Your task to perform on an android device: delete the emails in spam in the gmail app Image 0: 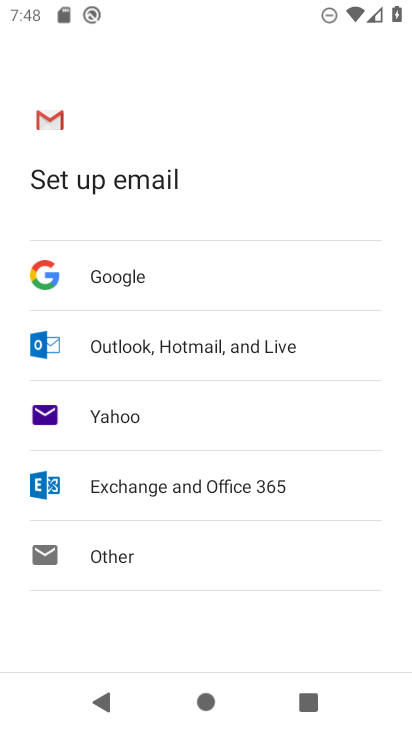
Step 0: press home button
Your task to perform on an android device: delete the emails in spam in the gmail app Image 1: 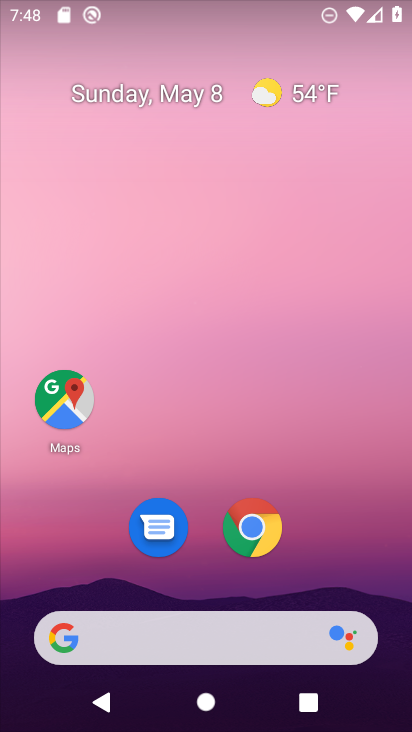
Step 1: drag from (318, 543) to (336, 95)
Your task to perform on an android device: delete the emails in spam in the gmail app Image 2: 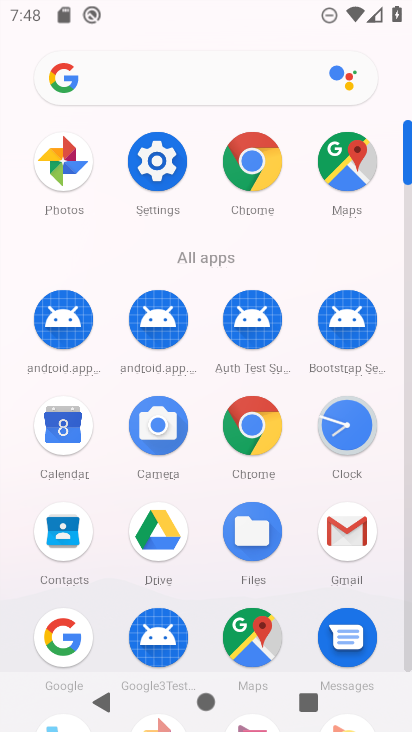
Step 2: click (341, 544)
Your task to perform on an android device: delete the emails in spam in the gmail app Image 3: 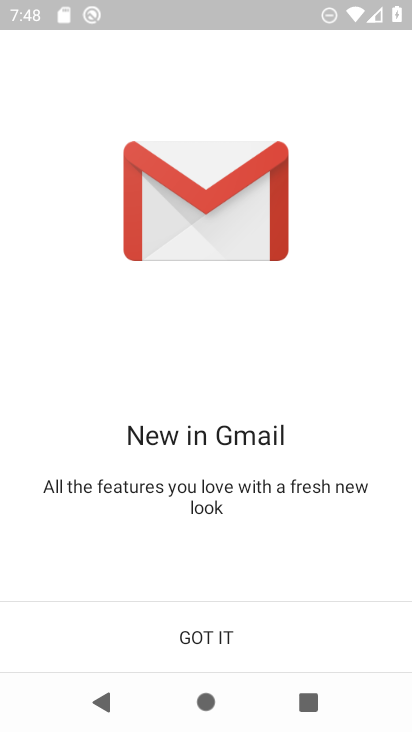
Step 3: click (187, 589)
Your task to perform on an android device: delete the emails in spam in the gmail app Image 4: 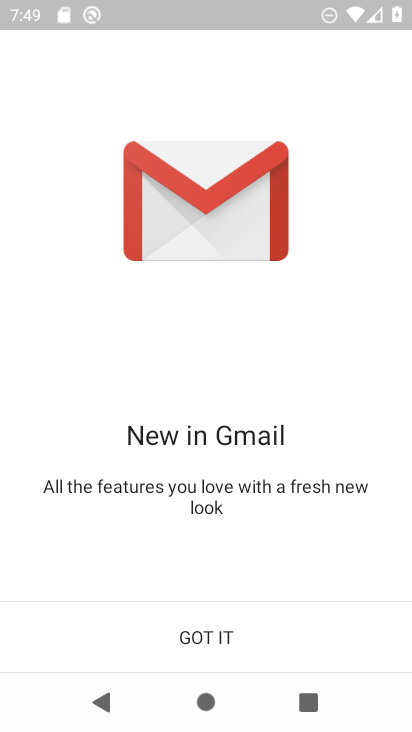
Step 4: click (189, 635)
Your task to perform on an android device: delete the emails in spam in the gmail app Image 5: 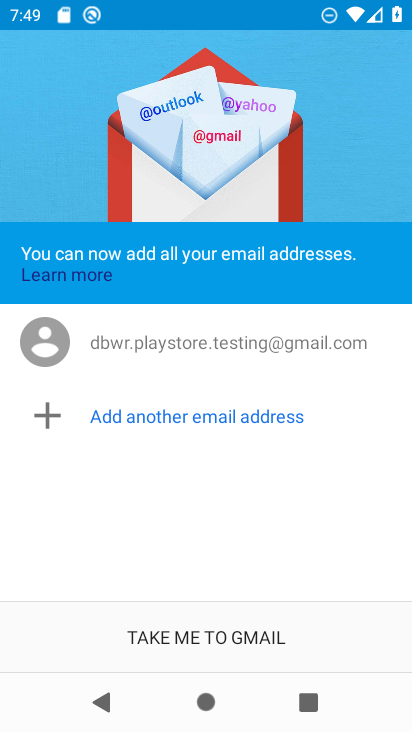
Step 5: click (211, 628)
Your task to perform on an android device: delete the emails in spam in the gmail app Image 6: 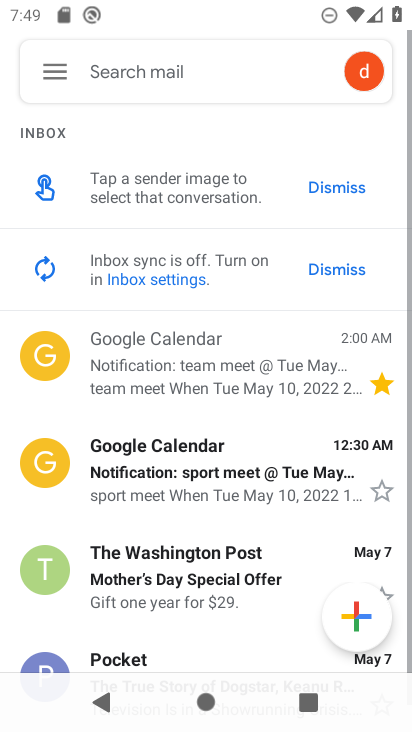
Step 6: click (37, 66)
Your task to perform on an android device: delete the emails in spam in the gmail app Image 7: 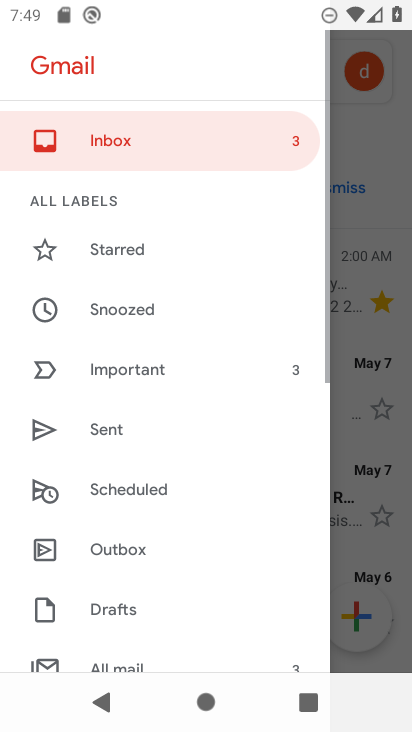
Step 7: drag from (65, 532) to (188, 110)
Your task to perform on an android device: delete the emails in spam in the gmail app Image 8: 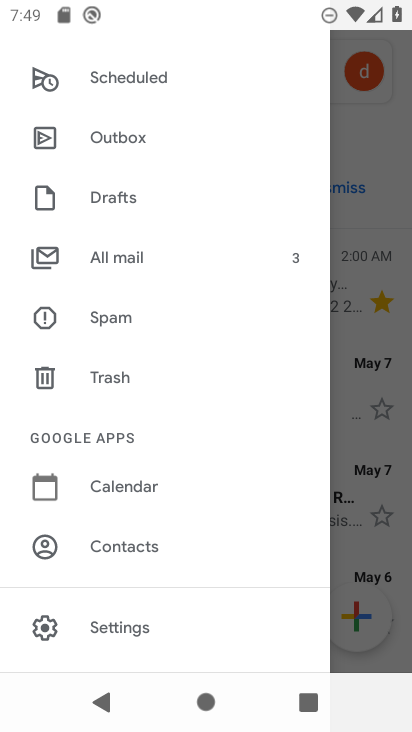
Step 8: click (139, 335)
Your task to perform on an android device: delete the emails in spam in the gmail app Image 9: 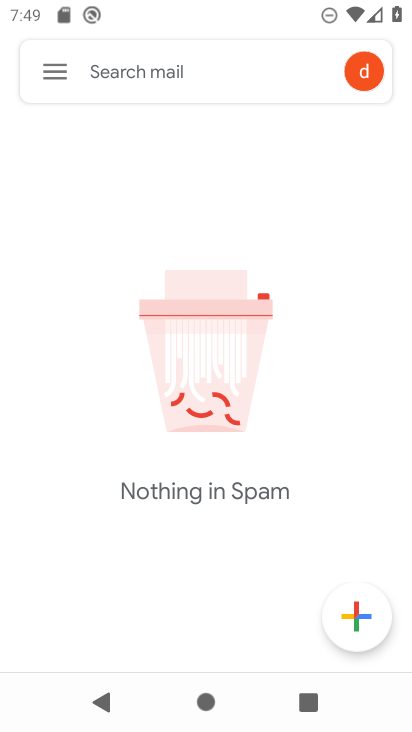
Step 9: task complete